Your task to perform on an android device: see tabs open on other devices in the chrome app Image 0: 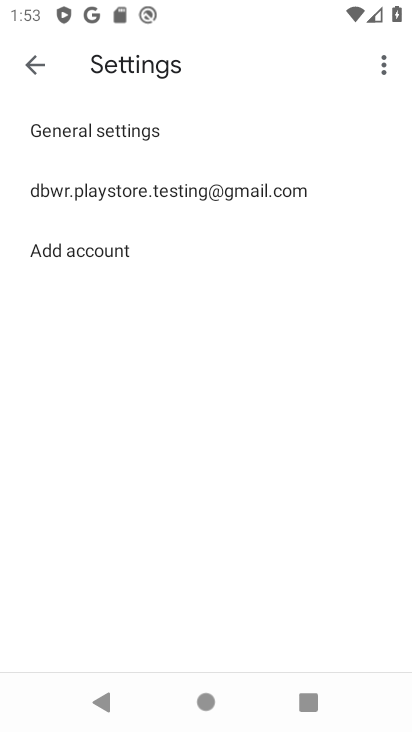
Step 0: press home button
Your task to perform on an android device: see tabs open on other devices in the chrome app Image 1: 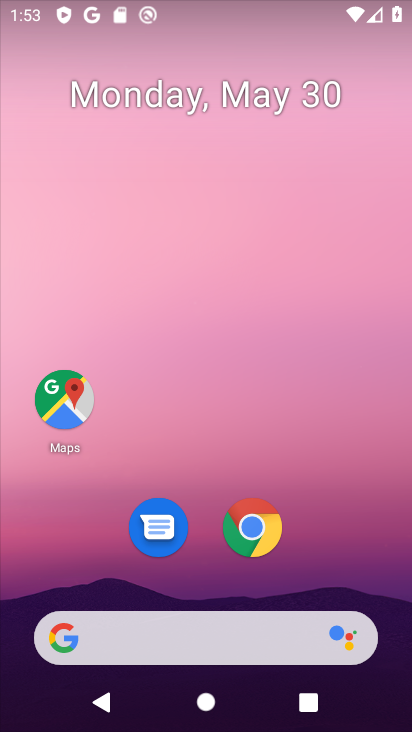
Step 1: click (362, 44)
Your task to perform on an android device: see tabs open on other devices in the chrome app Image 2: 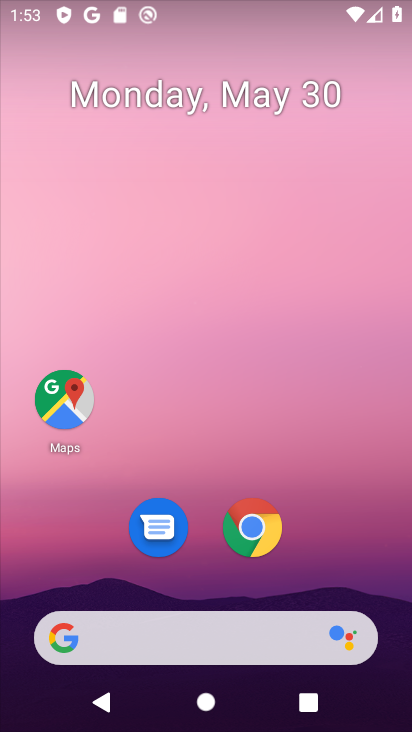
Step 2: drag from (192, 570) to (173, 186)
Your task to perform on an android device: see tabs open on other devices in the chrome app Image 3: 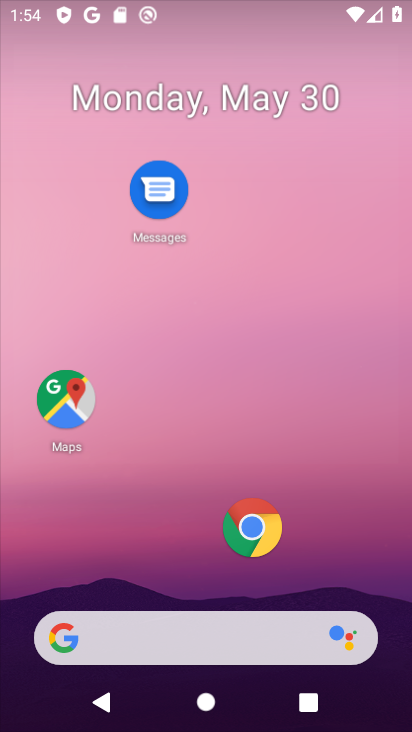
Step 3: drag from (207, 532) to (252, 144)
Your task to perform on an android device: see tabs open on other devices in the chrome app Image 4: 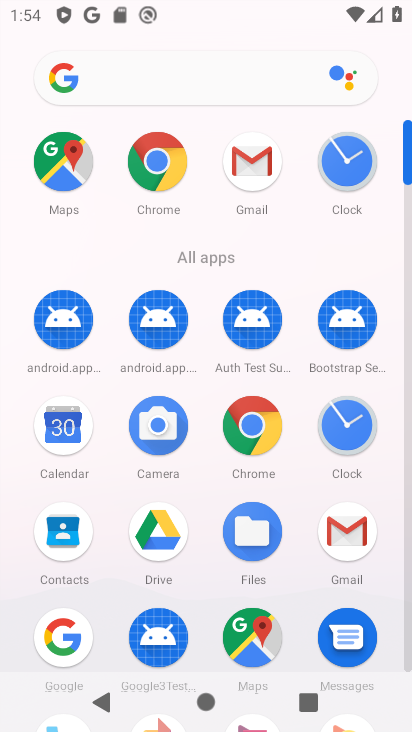
Step 4: click (244, 437)
Your task to perform on an android device: see tabs open on other devices in the chrome app Image 5: 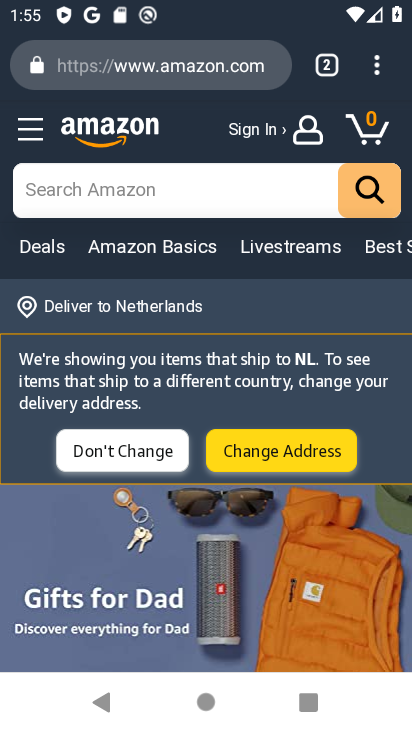
Step 5: click (376, 76)
Your task to perform on an android device: see tabs open on other devices in the chrome app Image 6: 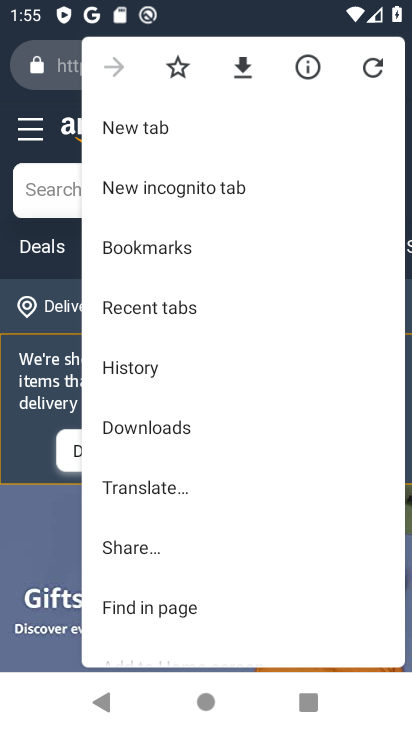
Step 6: click (388, 66)
Your task to perform on an android device: see tabs open on other devices in the chrome app Image 7: 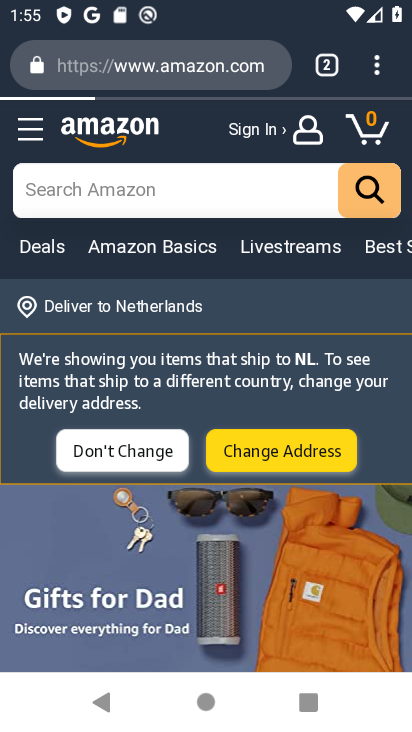
Step 7: click (380, 74)
Your task to perform on an android device: see tabs open on other devices in the chrome app Image 8: 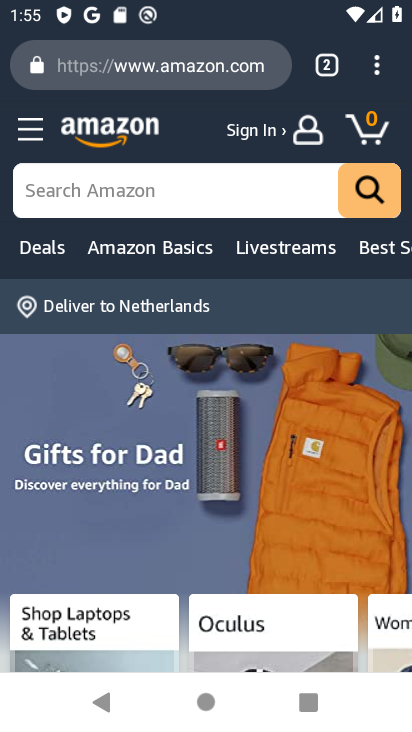
Step 8: click (382, 68)
Your task to perform on an android device: see tabs open on other devices in the chrome app Image 9: 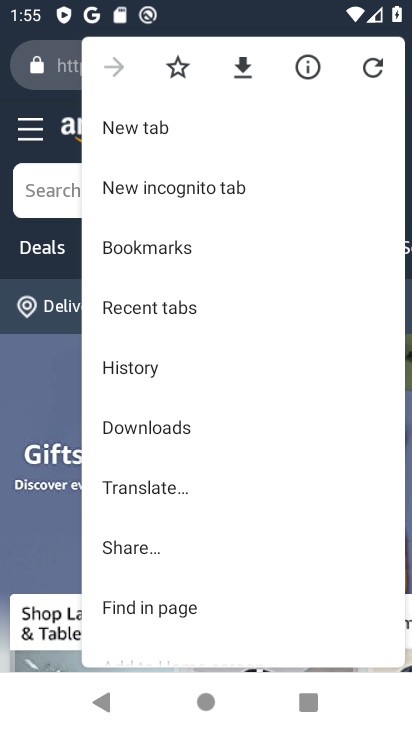
Step 9: click (200, 310)
Your task to perform on an android device: see tabs open on other devices in the chrome app Image 10: 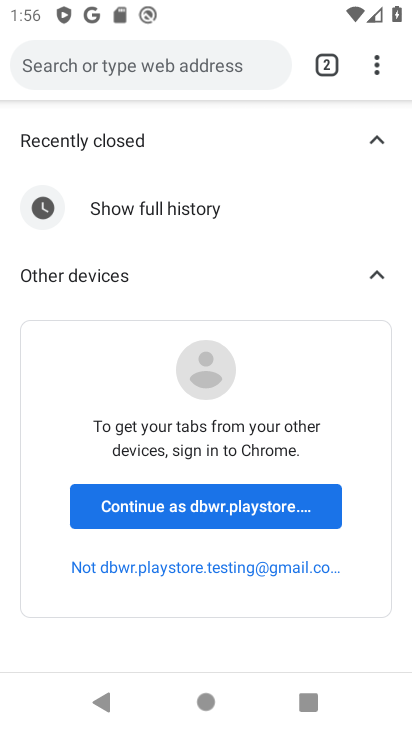
Step 10: click (260, 510)
Your task to perform on an android device: see tabs open on other devices in the chrome app Image 11: 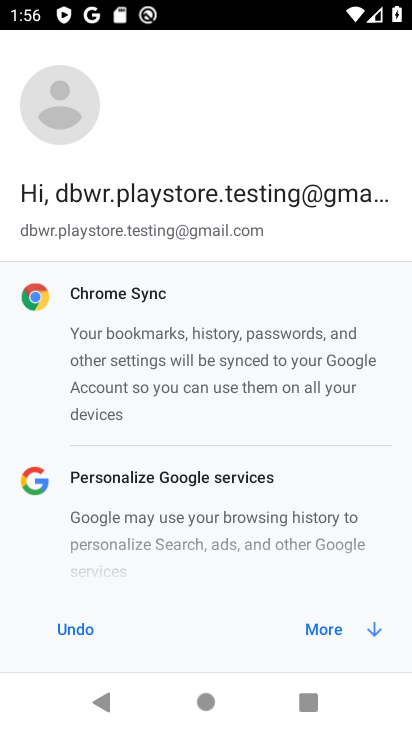
Step 11: click (362, 629)
Your task to perform on an android device: see tabs open on other devices in the chrome app Image 12: 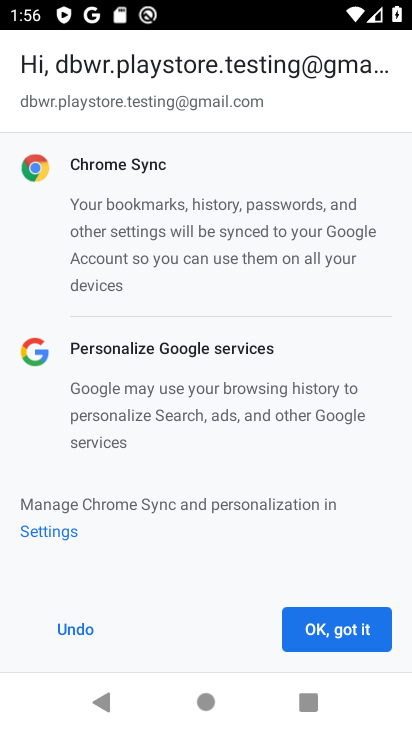
Step 12: click (362, 629)
Your task to perform on an android device: see tabs open on other devices in the chrome app Image 13: 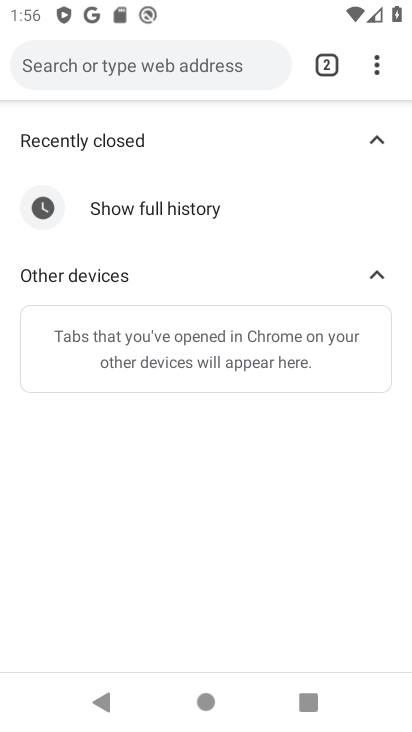
Step 13: click (366, 629)
Your task to perform on an android device: see tabs open on other devices in the chrome app Image 14: 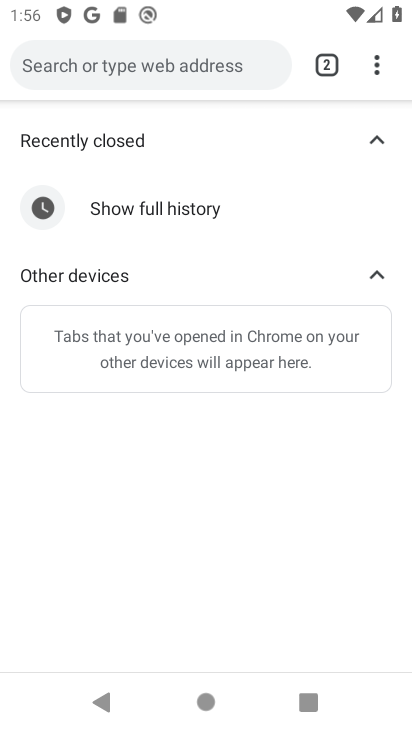
Step 14: click (359, 276)
Your task to perform on an android device: see tabs open on other devices in the chrome app Image 15: 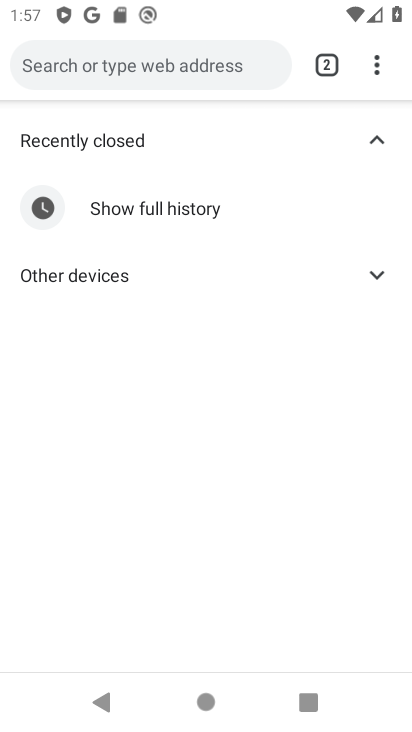
Step 15: task complete